Your task to perform on an android device: Turn off the flashlight Image 0: 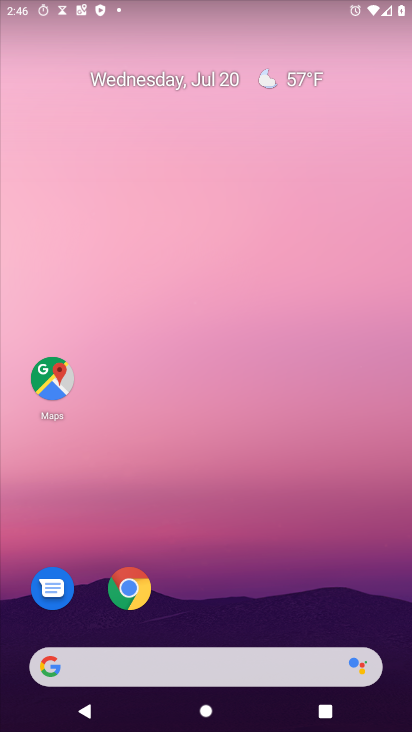
Step 0: drag from (326, 552) to (315, 4)
Your task to perform on an android device: Turn off the flashlight Image 1: 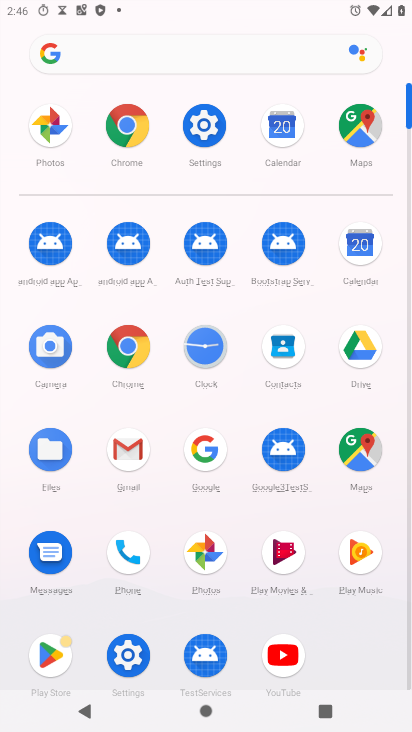
Step 1: click (135, 648)
Your task to perform on an android device: Turn off the flashlight Image 2: 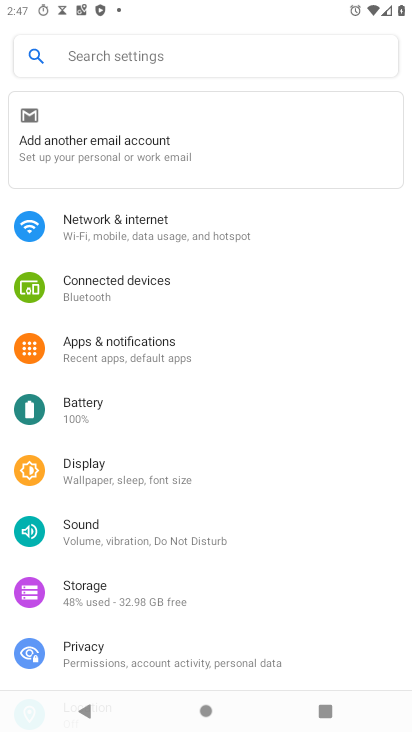
Step 2: click (151, 348)
Your task to perform on an android device: Turn off the flashlight Image 3: 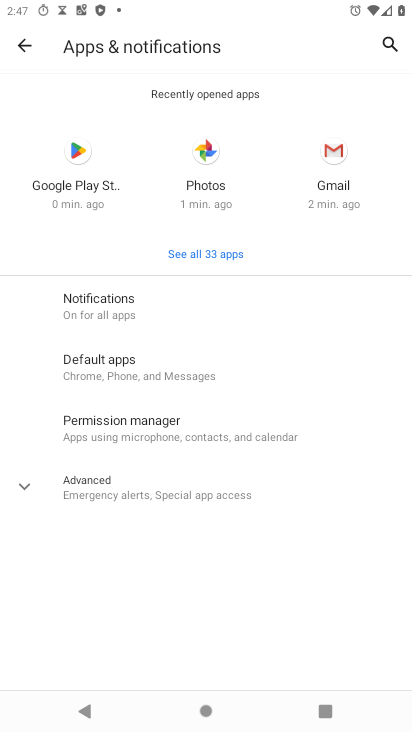
Step 3: task complete